Your task to perform on an android device: Open Google Maps and go to "Timeline" Image 0: 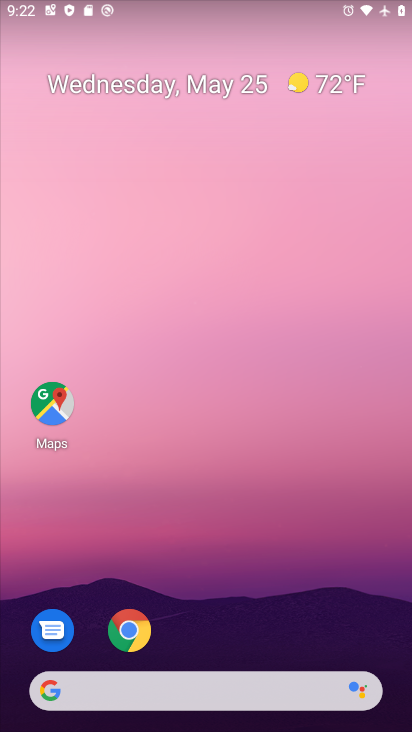
Step 0: click (50, 424)
Your task to perform on an android device: Open Google Maps and go to "Timeline" Image 1: 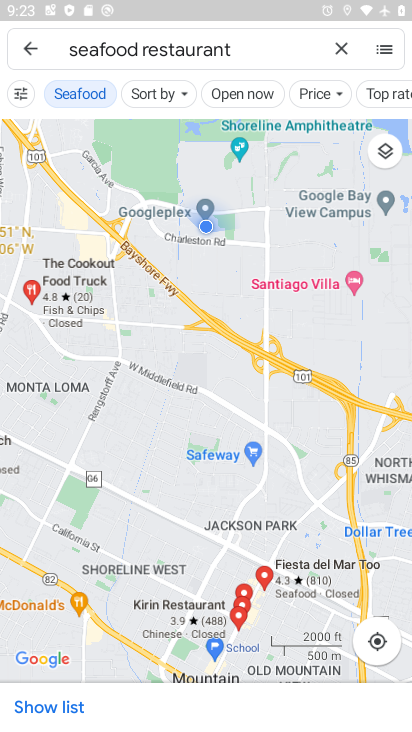
Step 1: click (31, 49)
Your task to perform on an android device: Open Google Maps and go to "Timeline" Image 2: 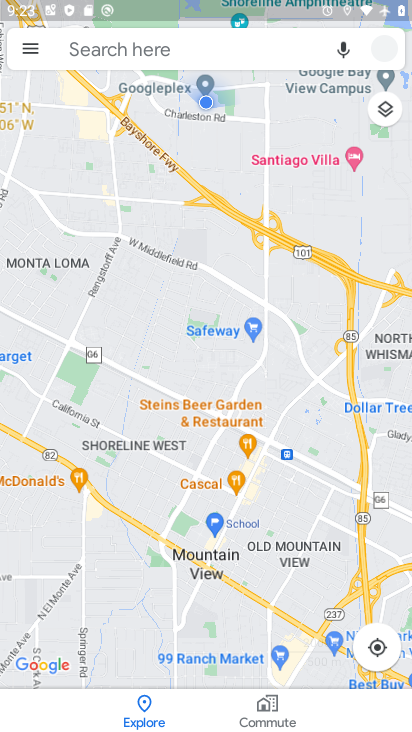
Step 2: click (31, 49)
Your task to perform on an android device: Open Google Maps and go to "Timeline" Image 3: 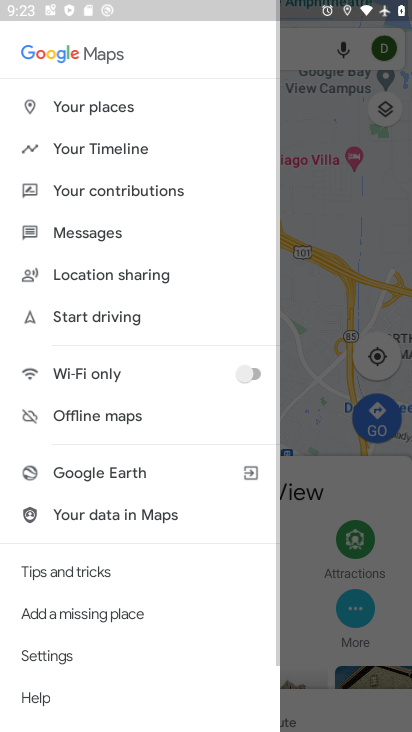
Step 3: click (83, 139)
Your task to perform on an android device: Open Google Maps and go to "Timeline" Image 4: 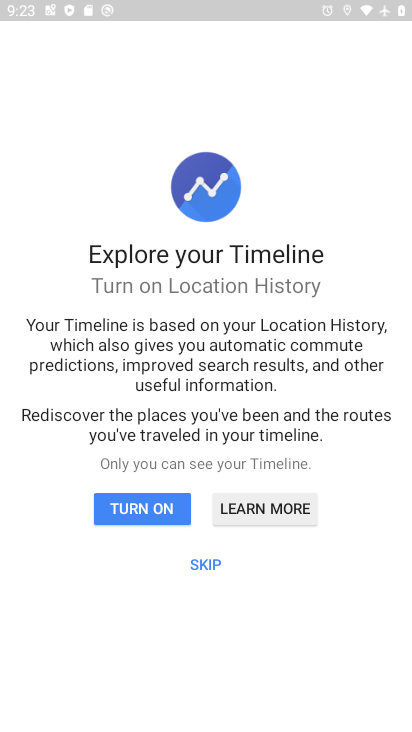
Step 4: click (203, 559)
Your task to perform on an android device: Open Google Maps and go to "Timeline" Image 5: 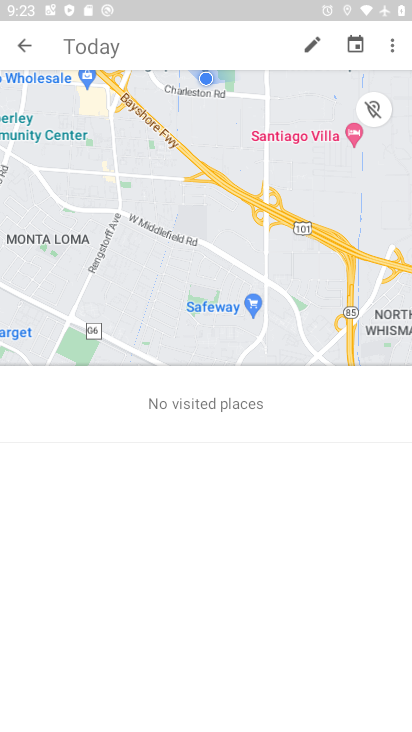
Step 5: task complete